Your task to perform on an android device: snooze an email in the gmail app Image 0: 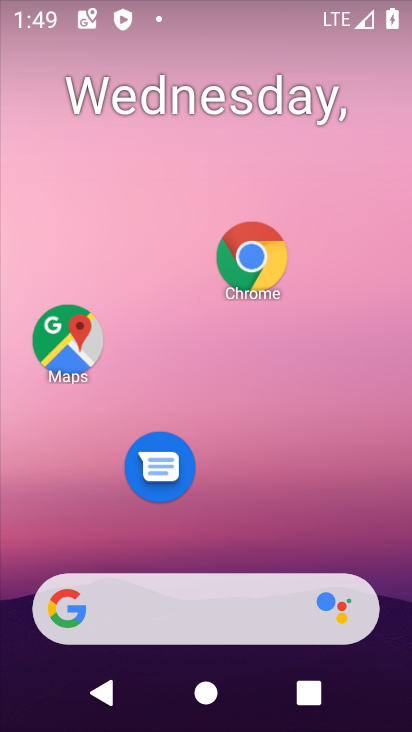
Step 0: drag from (304, 514) to (295, 453)
Your task to perform on an android device: snooze an email in the gmail app Image 1: 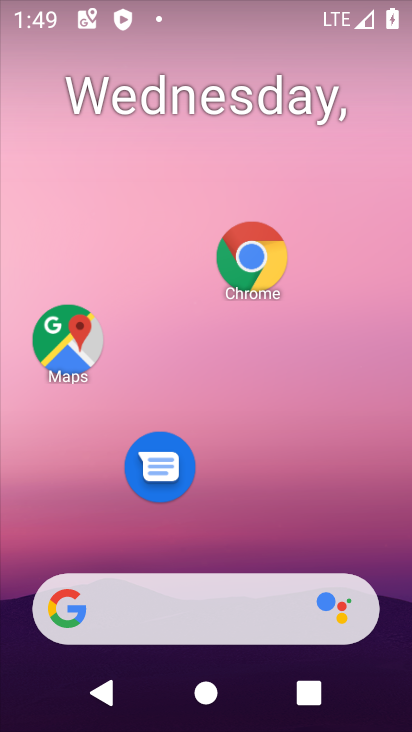
Step 1: drag from (305, 529) to (291, 94)
Your task to perform on an android device: snooze an email in the gmail app Image 2: 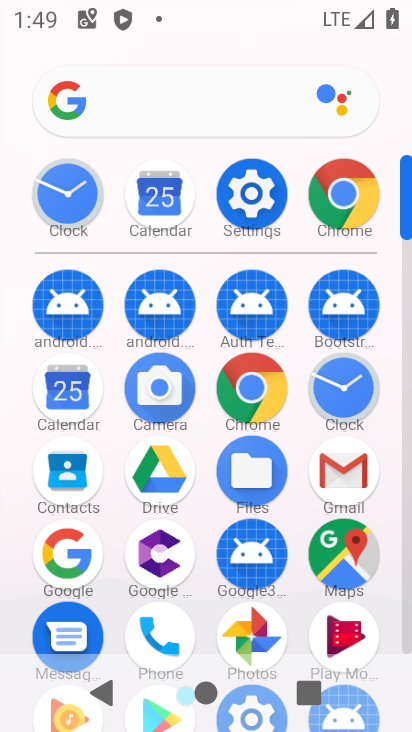
Step 2: click (324, 461)
Your task to perform on an android device: snooze an email in the gmail app Image 3: 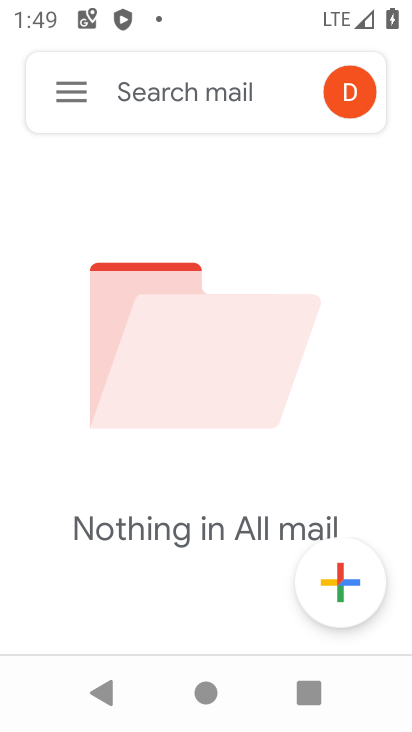
Step 3: task complete